Your task to perform on an android device: Is it going to rain tomorrow? Image 0: 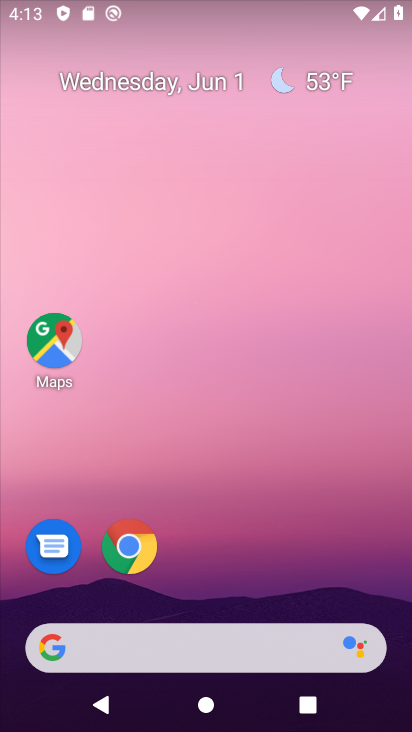
Step 0: click (221, 631)
Your task to perform on an android device: Is it going to rain tomorrow? Image 1: 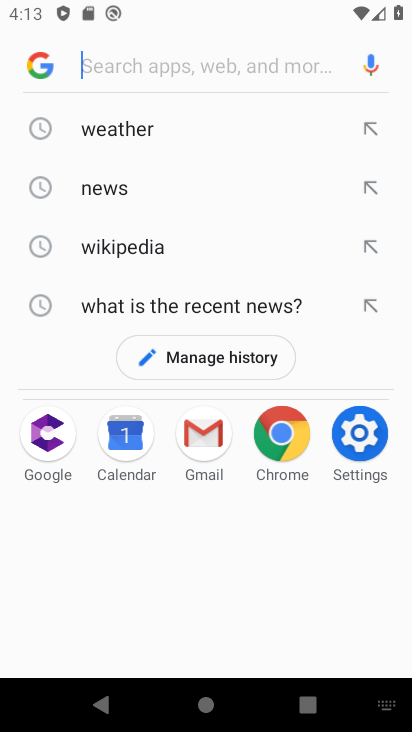
Step 1: click (119, 123)
Your task to perform on an android device: Is it going to rain tomorrow? Image 2: 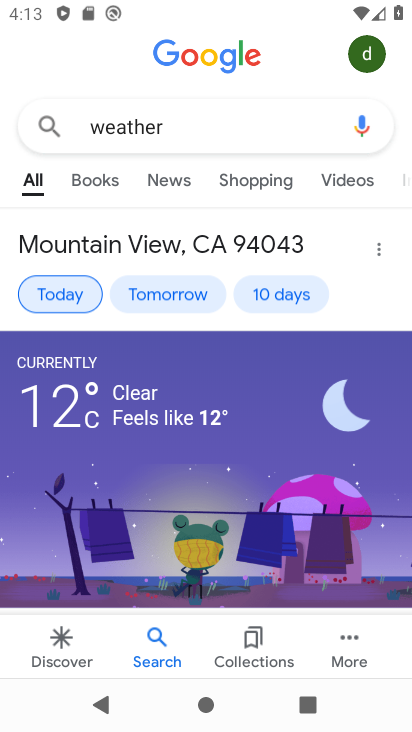
Step 2: click (161, 291)
Your task to perform on an android device: Is it going to rain tomorrow? Image 3: 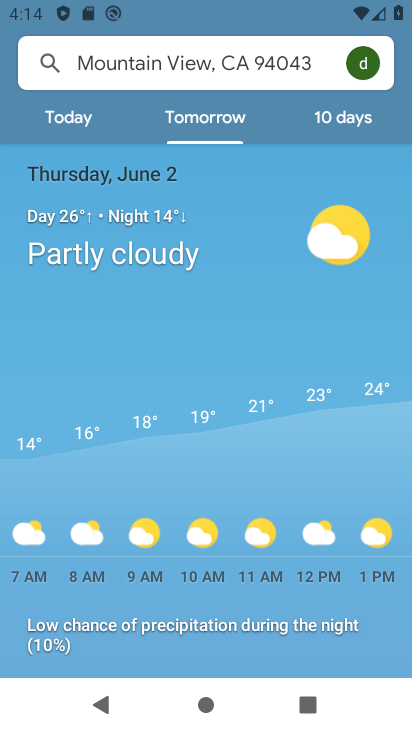
Step 3: task complete